Your task to perform on an android device: Empty the shopping cart on bestbuy. Add "macbook air" to the cart on bestbuy, then select checkout. Image 0: 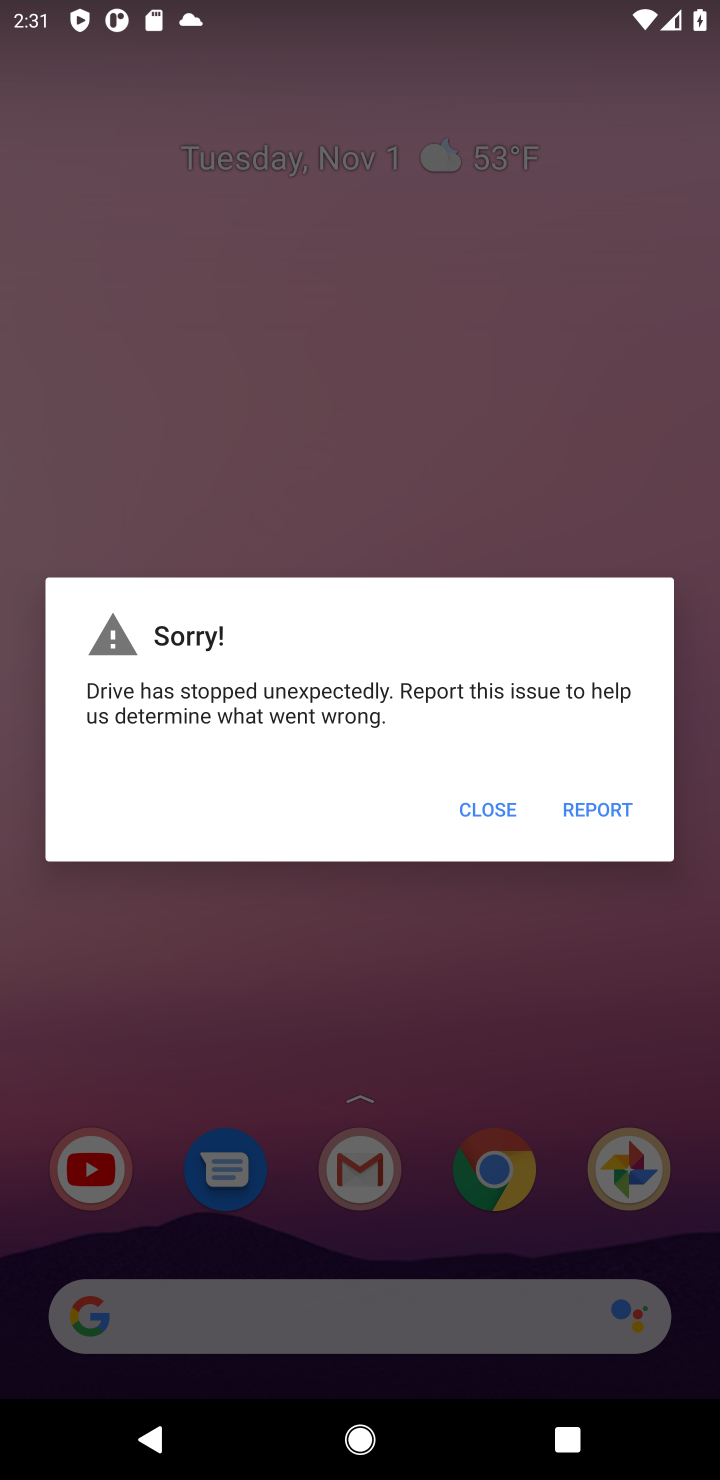
Step 0: click (457, 820)
Your task to perform on an android device: Empty the shopping cart on bestbuy. Add "macbook air" to the cart on bestbuy, then select checkout. Image 1: 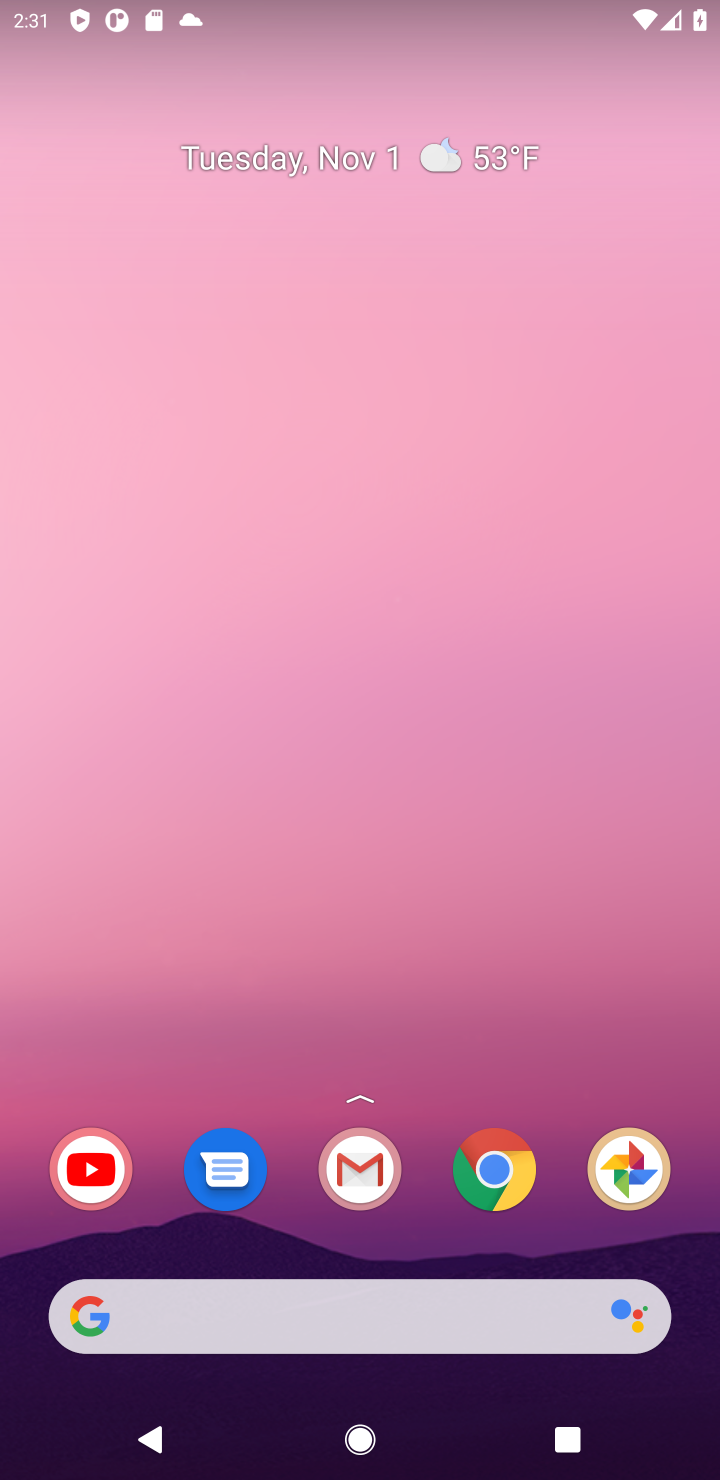
Step 1: click (487, 1164)
Your task to perform on an android device: Empty the shopping cart on bestbuy. Add "macbook air" to the cart on bestbuy, then select checkout. Image 2: 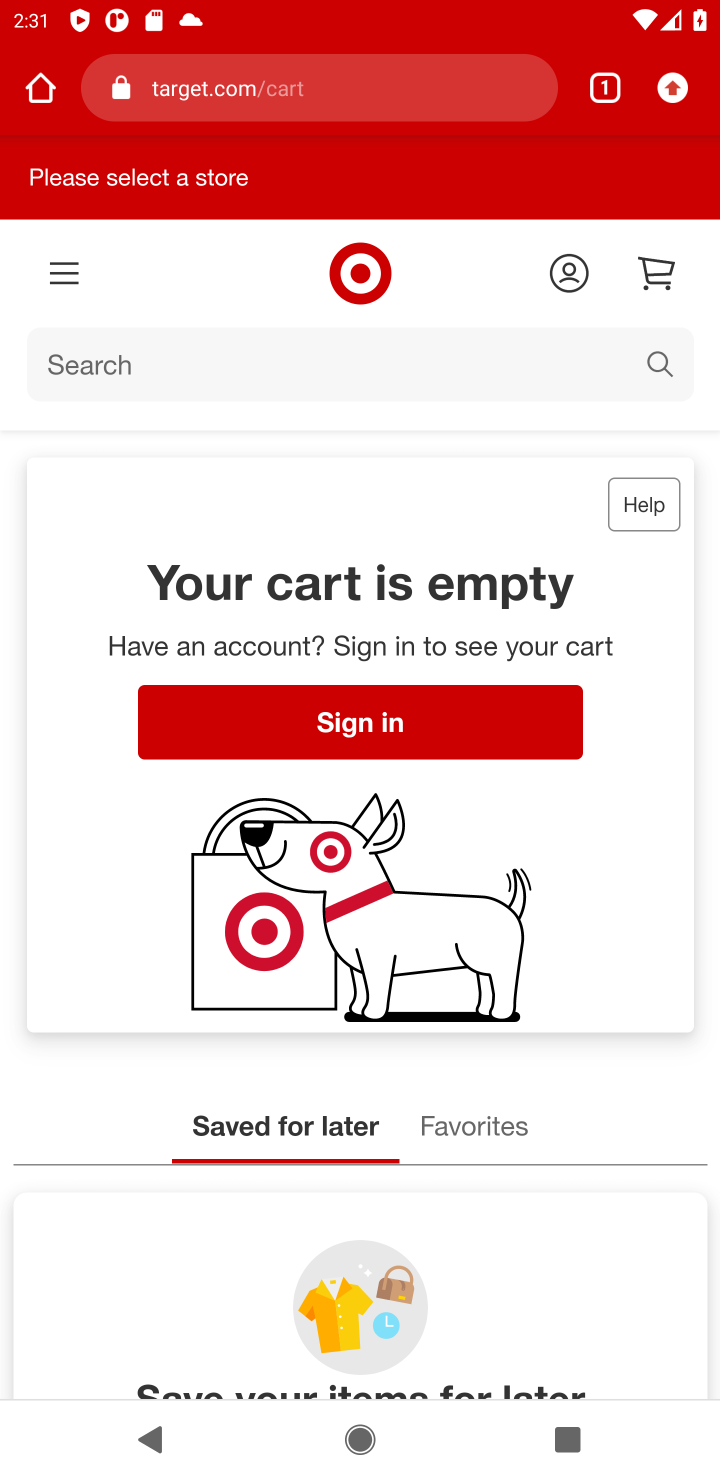
Step 2: click (650, 272)
Your task to perform on an android device: Empty the shopping cart on bestbuy. Add "macbook air" to the cart on bestbuy, then select checkout. Image 3: 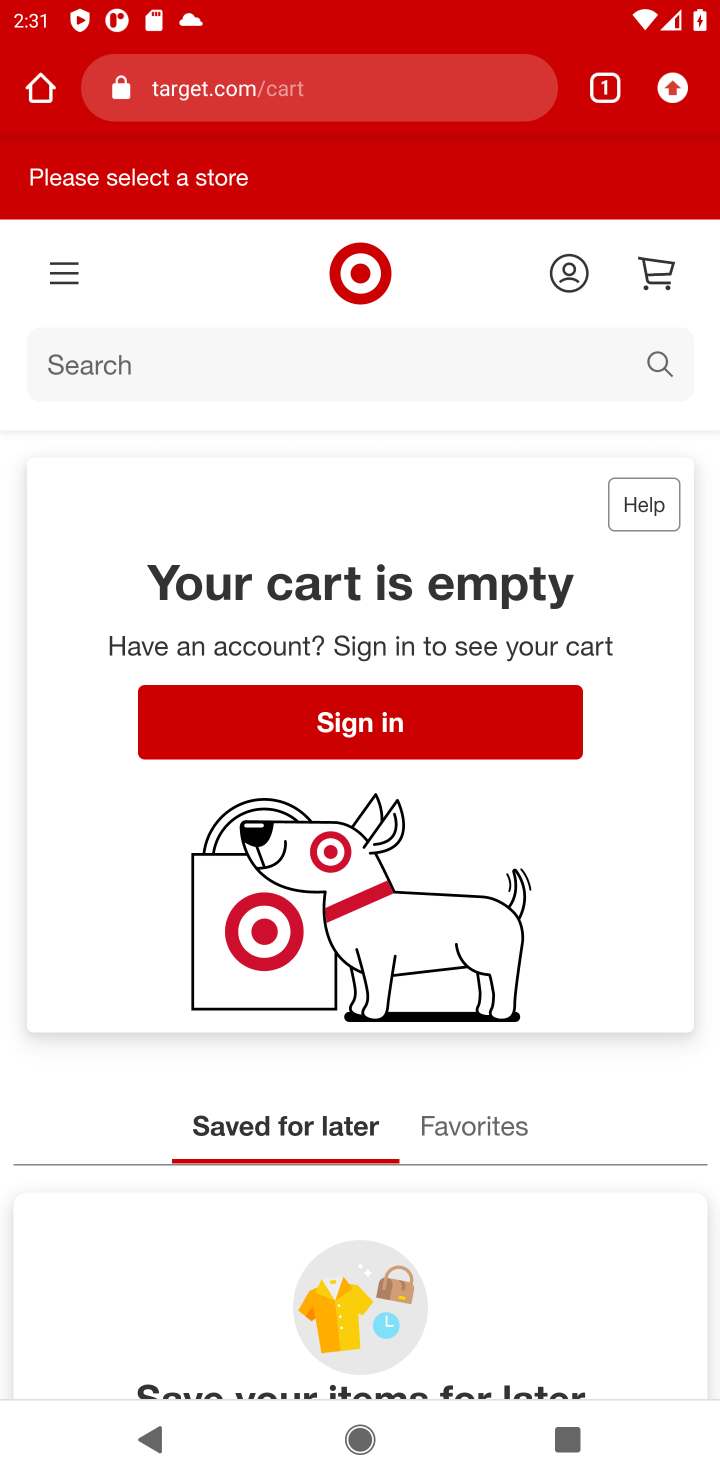
Step 3: click (168, 81)
Your task to perform on an android device: Empty the shopping cart on bestbuy. Add "macbook air" to the cart on bestbuy, then select checkout. Image 4: 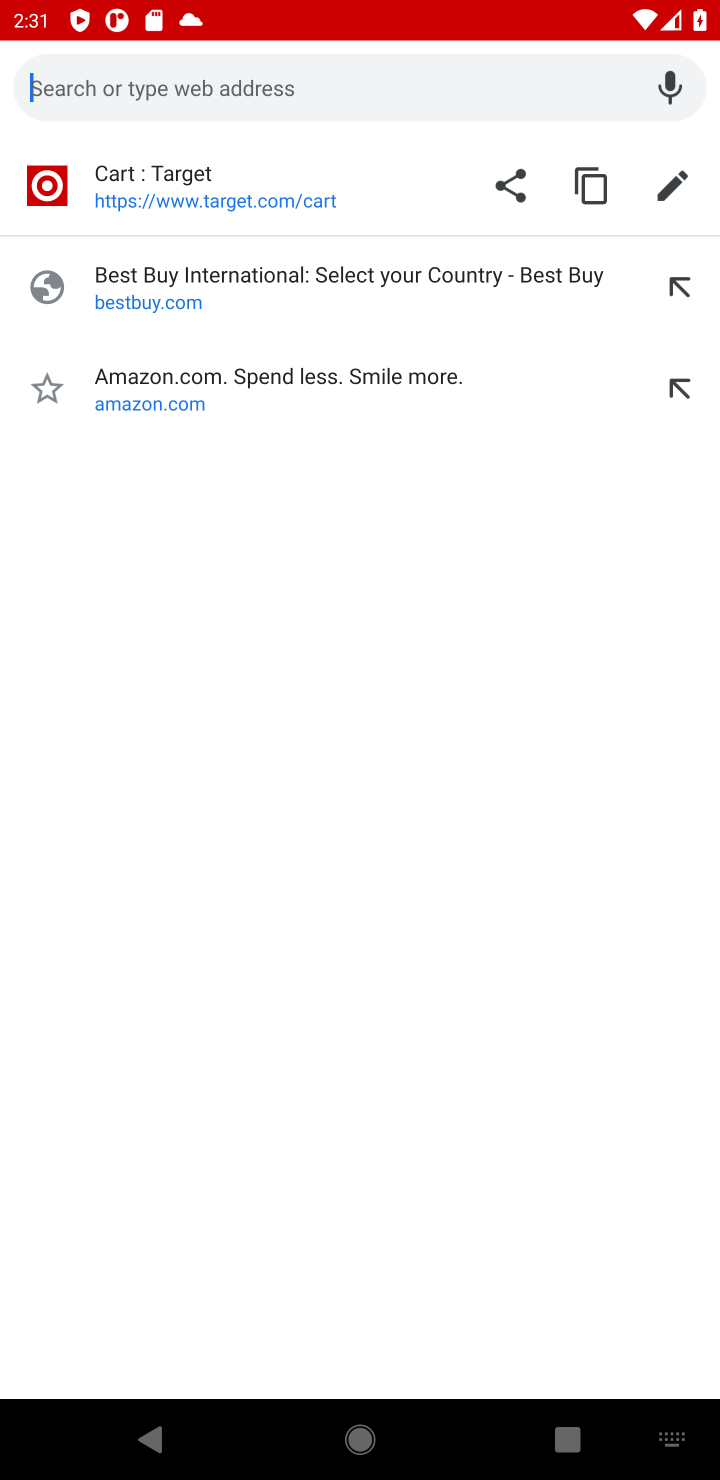
Step 4: click (100, 288)
Your task to perform on an android device: Empty the shopping cart on bestbuy. Add "macbook air" to the cart on bestbuy, then select checkout. Image 5: 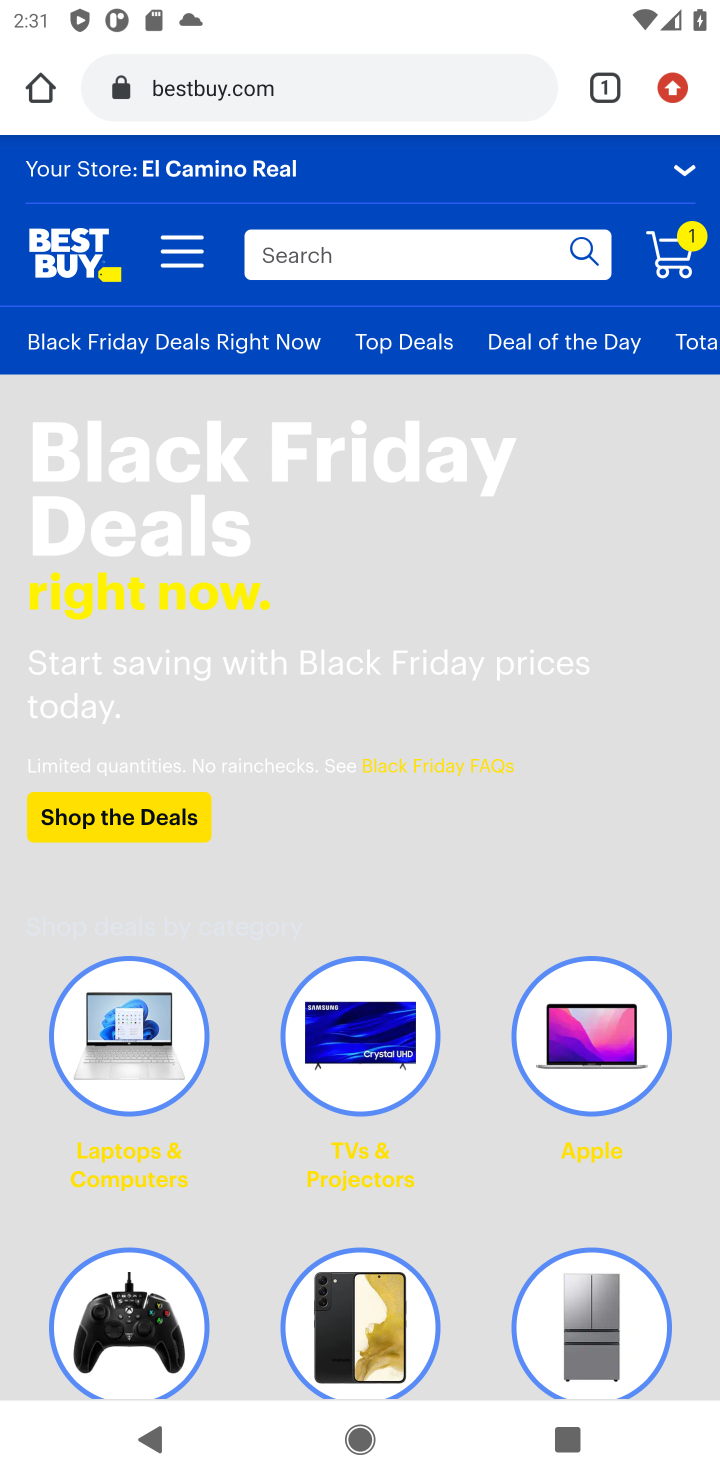
Step 5: click (673, 241)
Your task to perform on an android device: Empty the shopping cart on bestbuy. Add "macbook air" to the cart on bestbuy, then select checkout. Image 6: 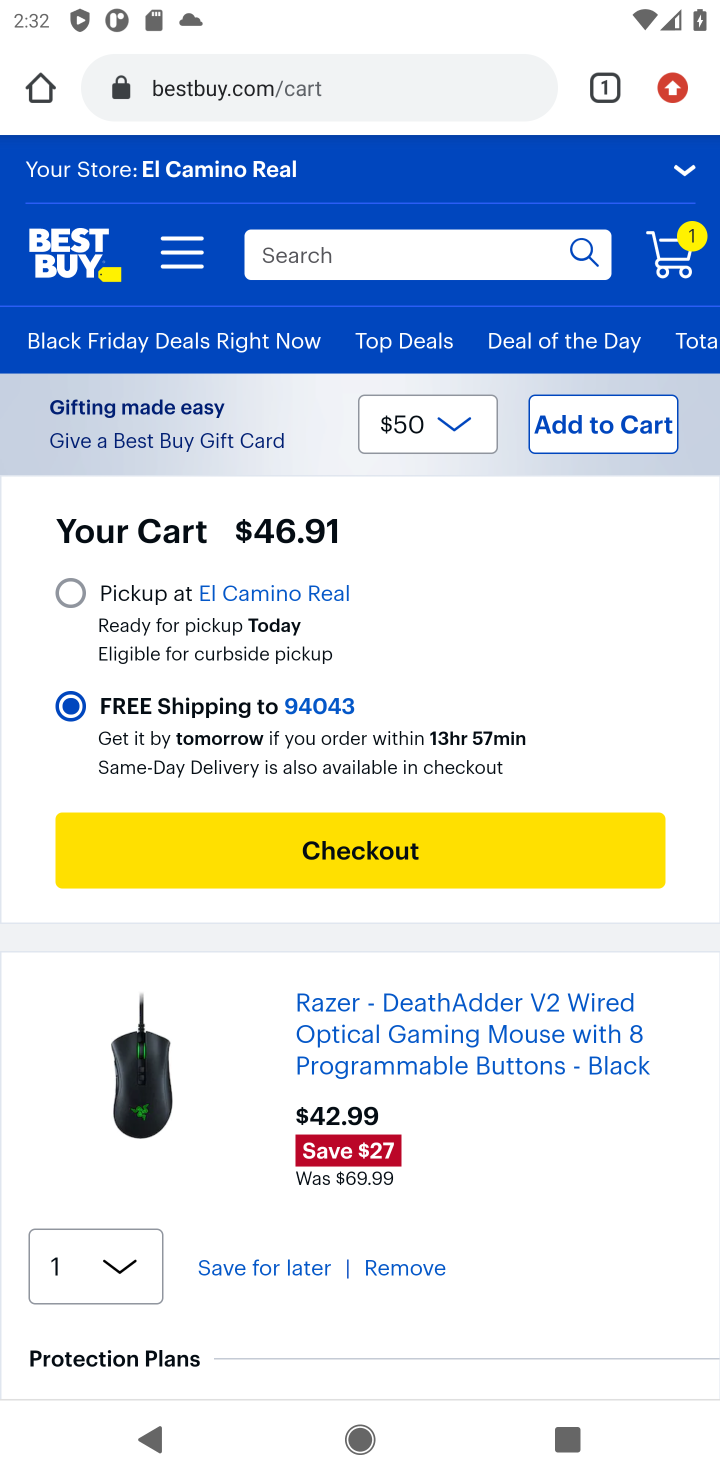
Step 6: click (425, 1263)
Your task to perform on an android device: Empty the shopping cart on bestbuy. Add "macbook air" to the cart on bestbuy, then select checkout. Image 7: 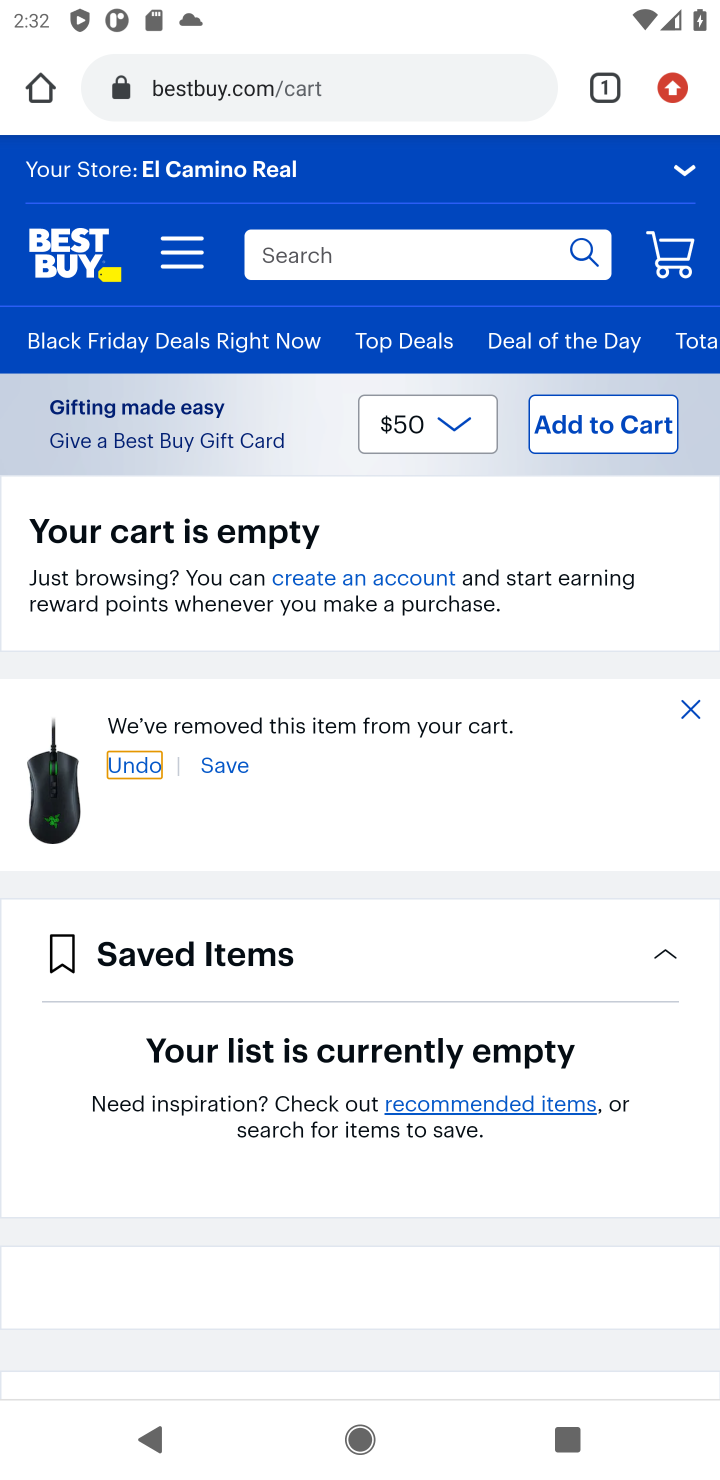
Step 7: click (310, 242)
Your task to perform on an android device: Empty the shopping cart on bestbuy. Add "macbook air" to the cart on bestbuy, then select checkout. Image 8: 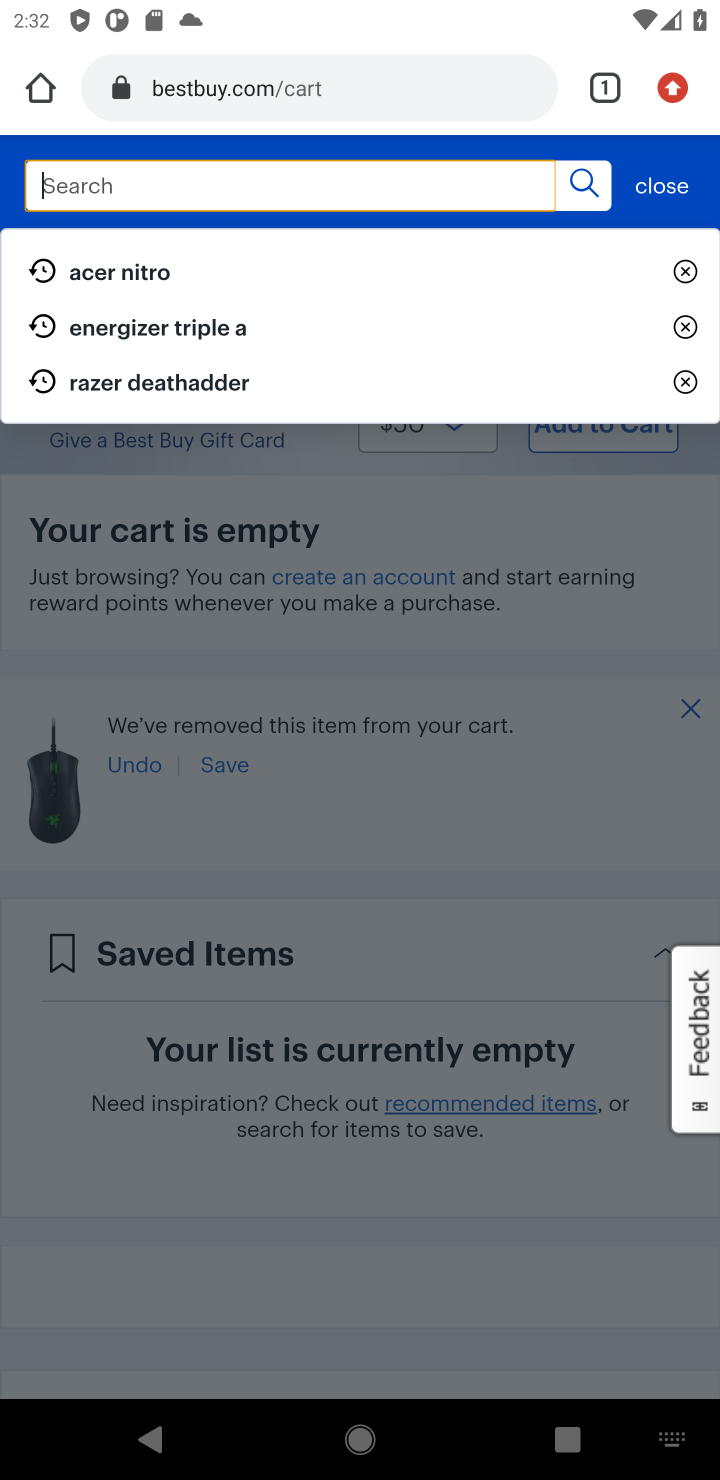
Step 8: type "macbook air"
Your task to perform on an android device: Empty the shopping cart on bestbuy. Add "macbook air" to the cart on bestbuy, then select checkout. Image 9: 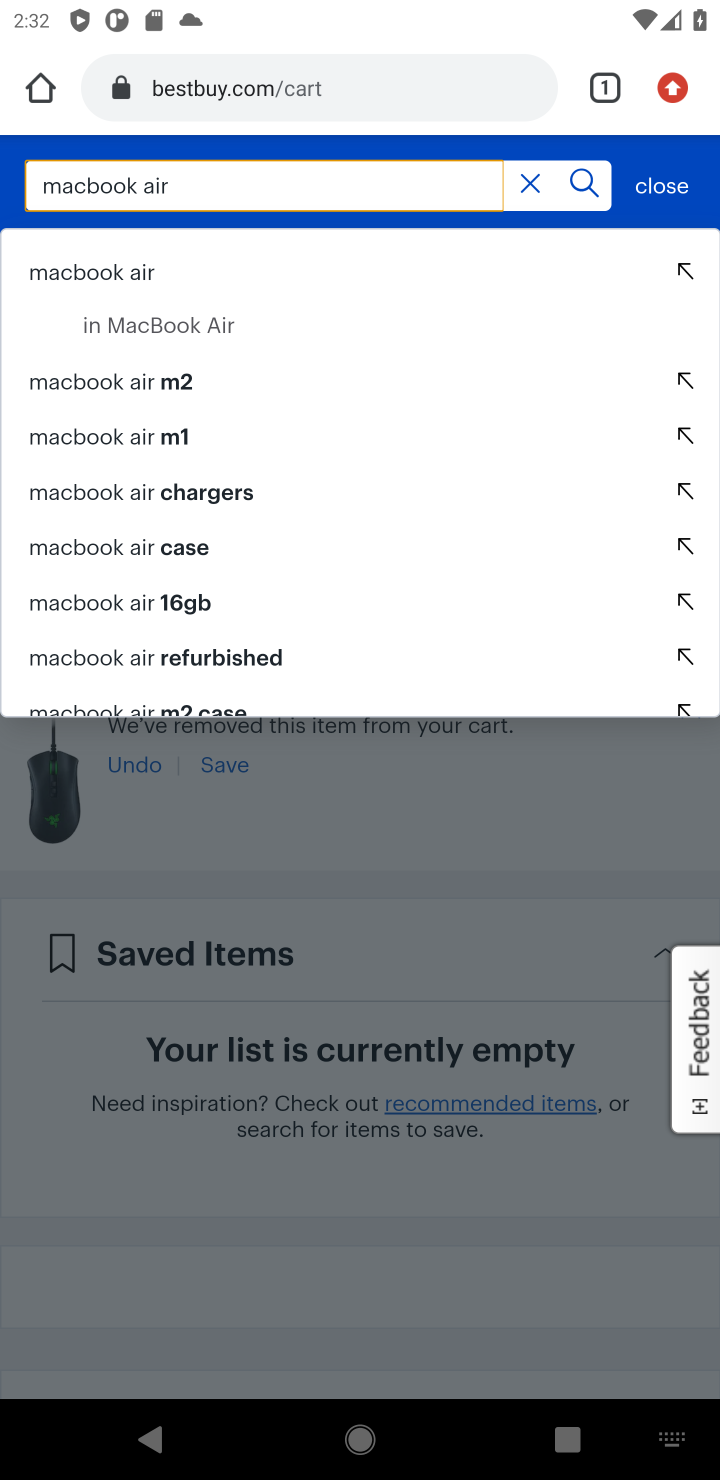
Step 9: click (588, 192)
Your task to perform on an android device: Empty the shopping cart on bestbuy. Add "macbook air" to the cart on bestbuy, then select checkout. Image 10: 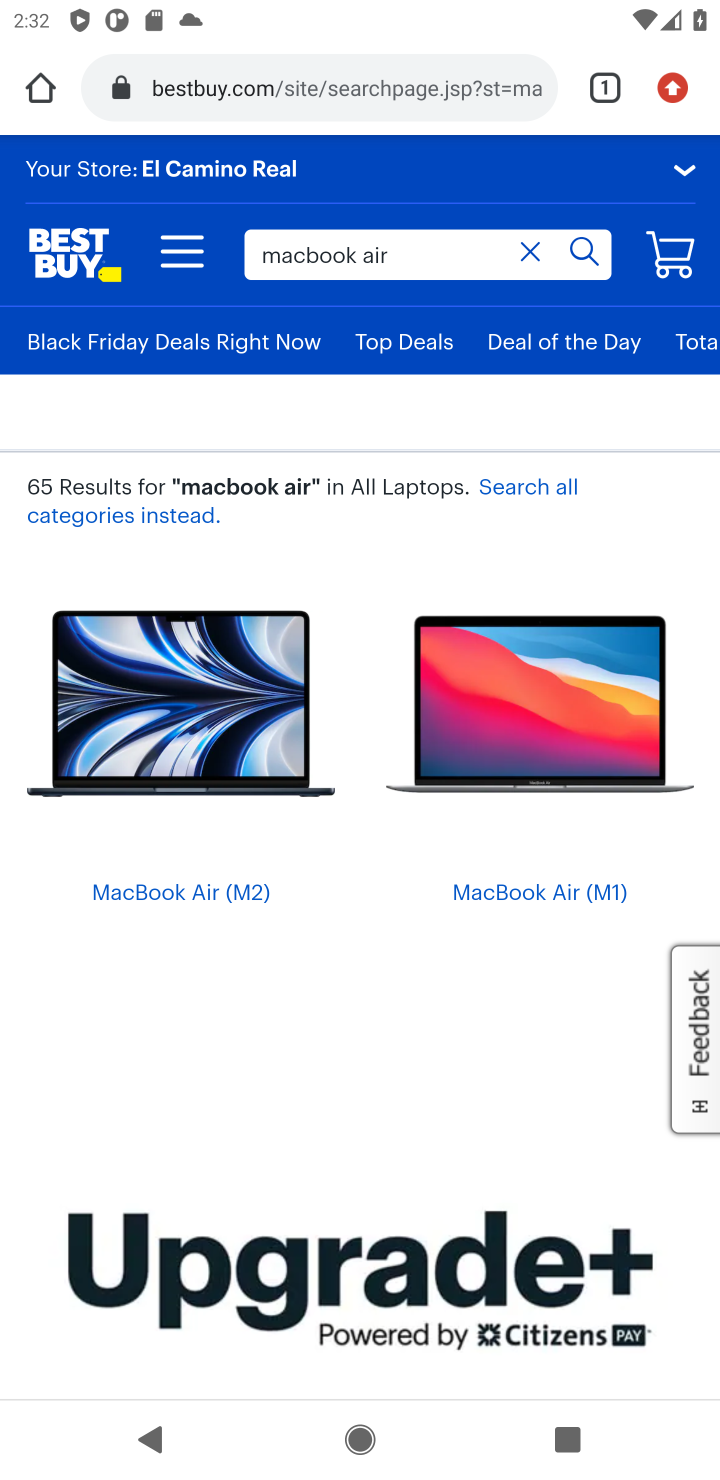
Step 10: click (275, 632)
Your task to perform on an android device: Empty the shopping cart on bestbuy. Add "macbook air" to the cart on bestbuy, then select checkout. Image 11: 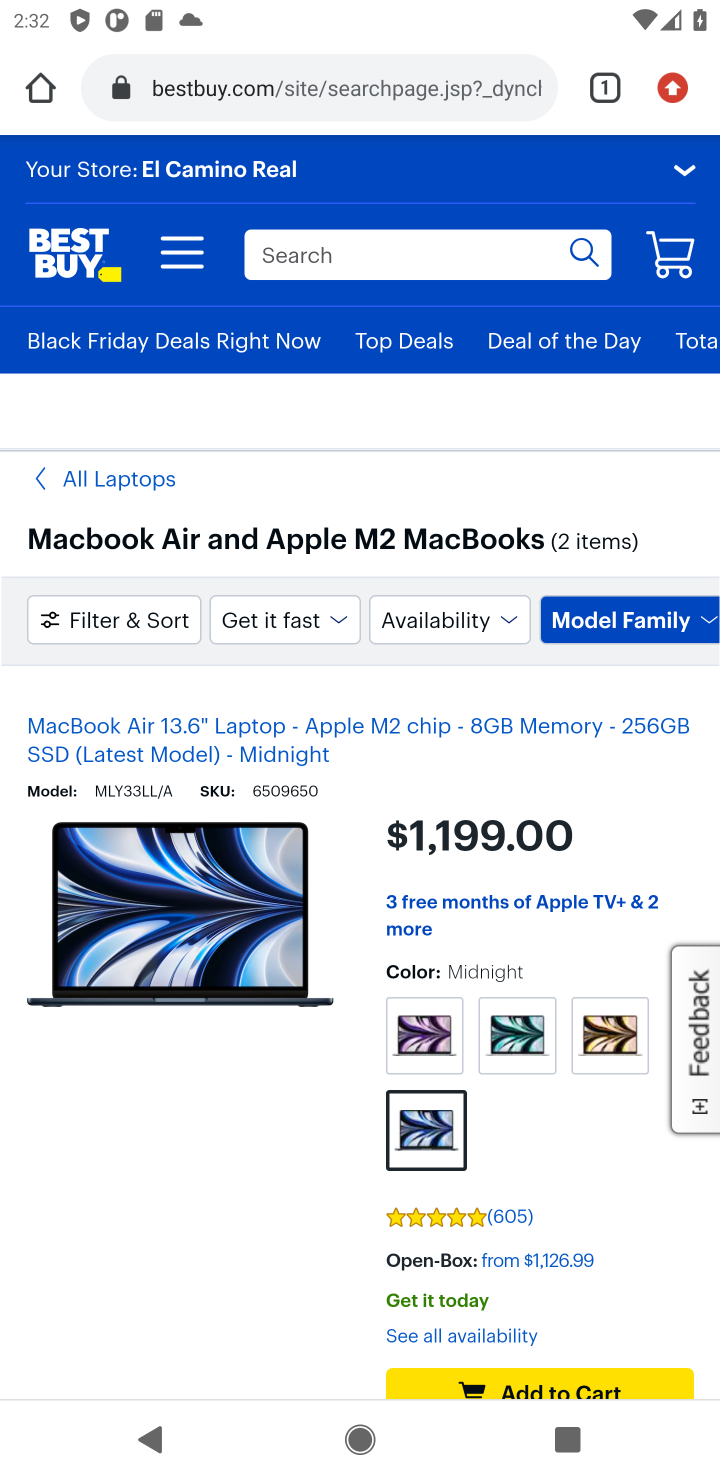
Step 11: click (561, 1385)
Your task to perform on an android device: Empty the shopping cart on bestbuy. Add "macbook air" to the cart on bestbuy, then select checkout. Image 12: 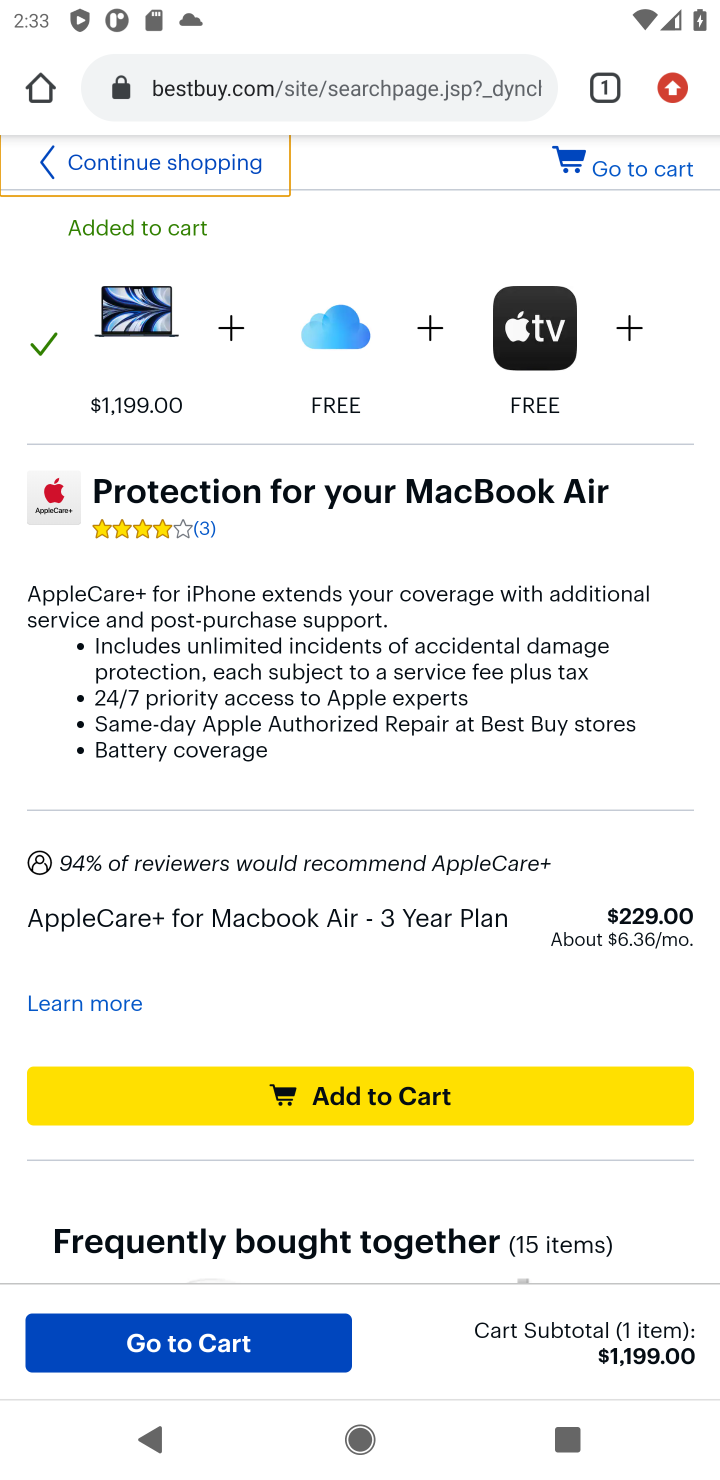
Step 12: click (173, 1351)
Your task to perform on an android device: Empty the shopping cart on bestbuy. Add "macbook air" to the cart on bestbuy, then select checkout. Image 13: 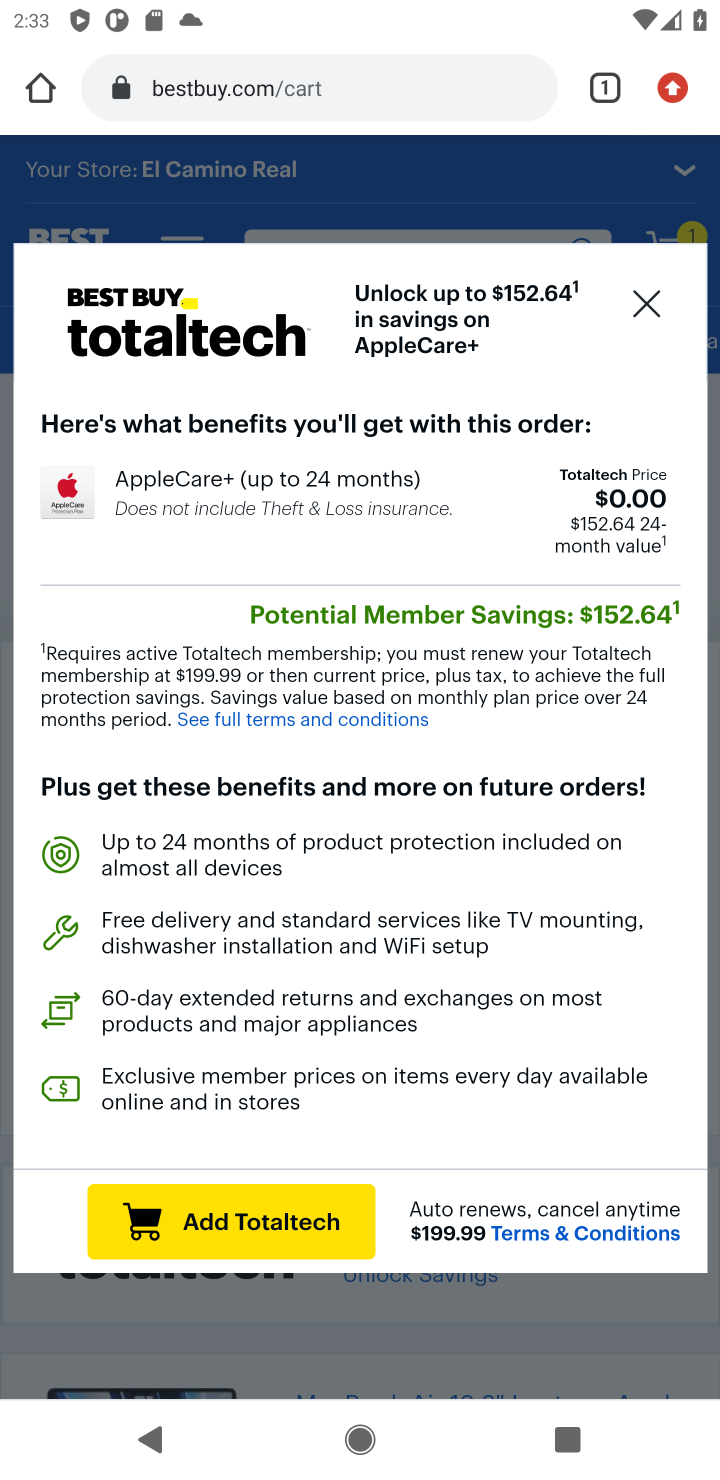
Step 13: click (652, 308)
Your task to perform on an android device: Empty the shopping cart on bestbuy. Add "macbook air" to the cart on bestbuy, then select checkout. Image 14: 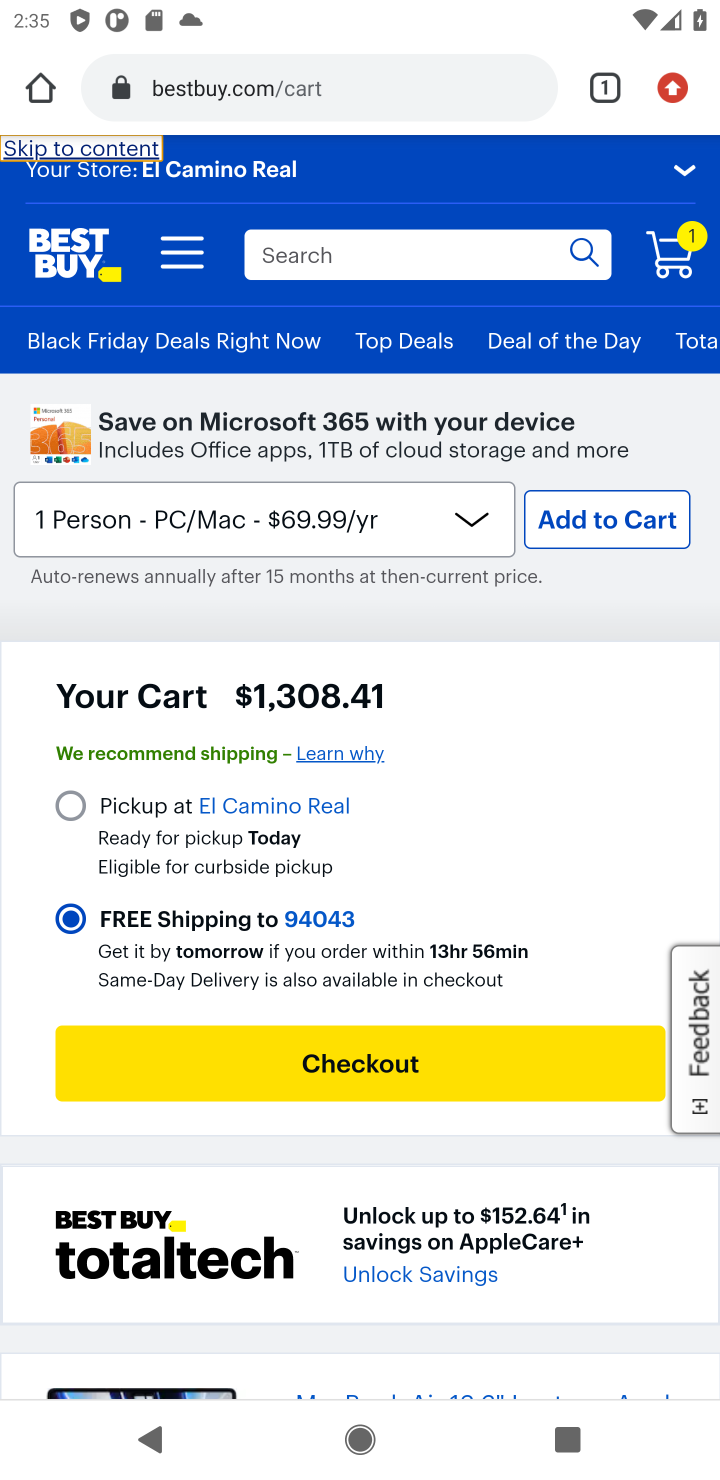
Step 14: click (227, 1034)
Your task to perform on an android device: Empty the shopping cart on bestbuy. Add "macbook air" to the cart on bestbuy, then select checkout. Image 15: 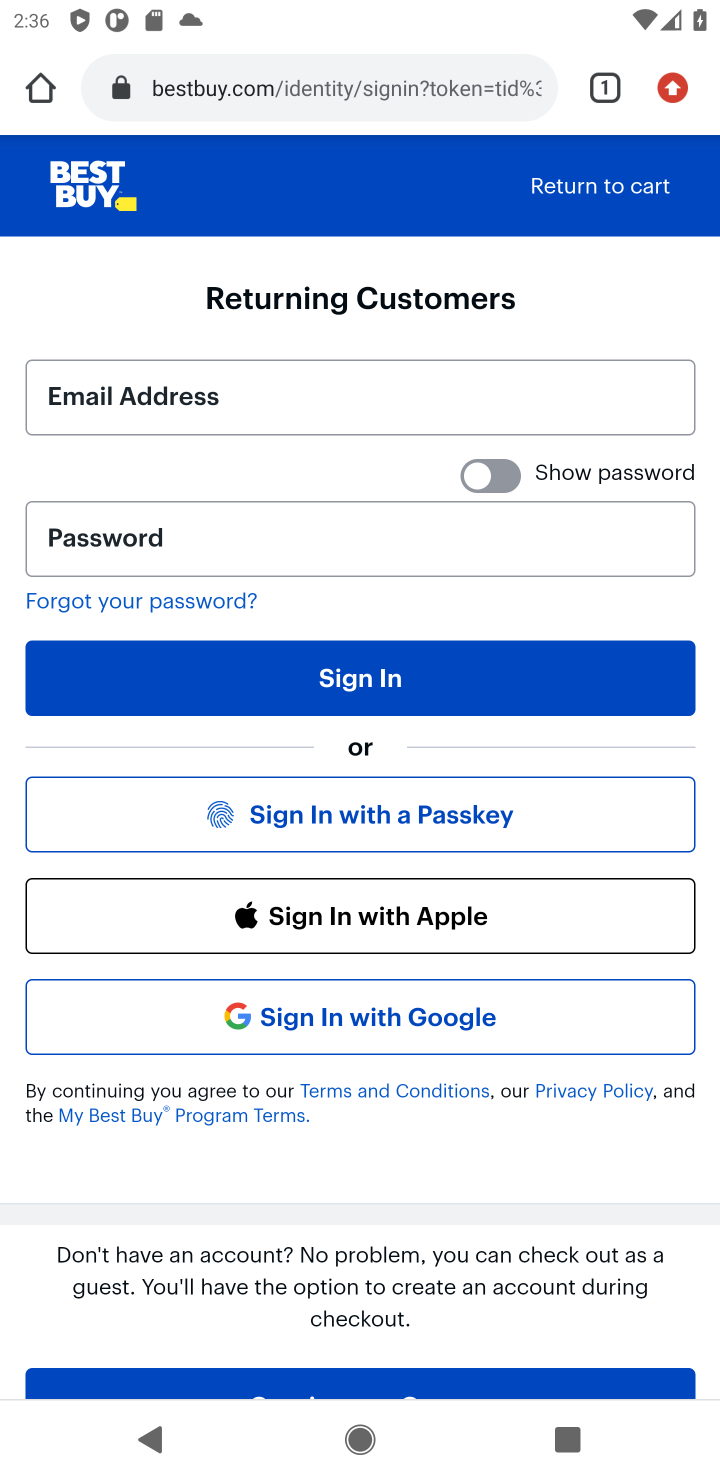
Step 15: task complete